Your task to perform on an android device: Find coffee shops on Maps Image 0: 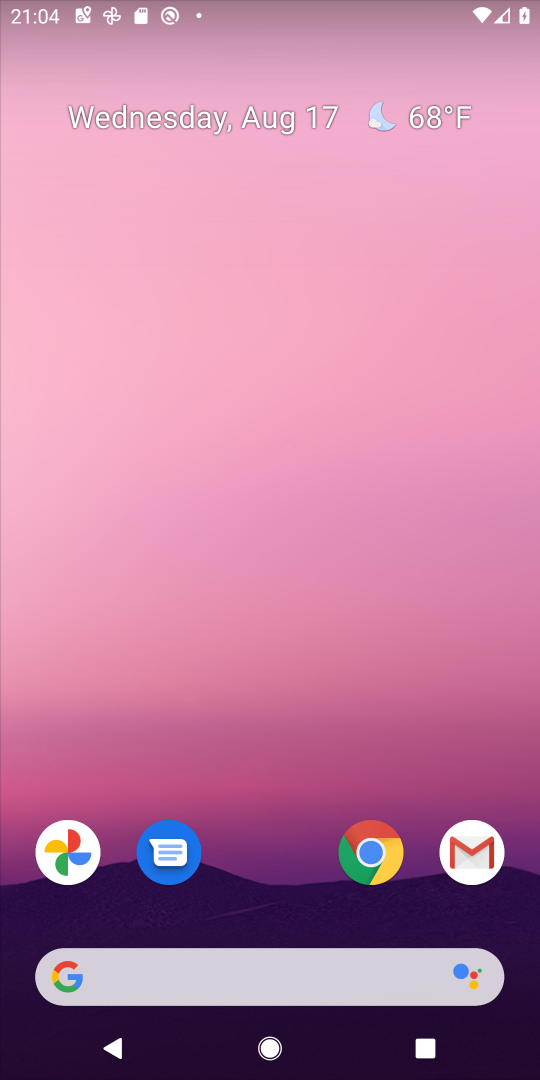
Step 0: drag from (283, 857) to (307, 99)
Your task to perform on an android device: Find coffee shops on Maps Image 1: 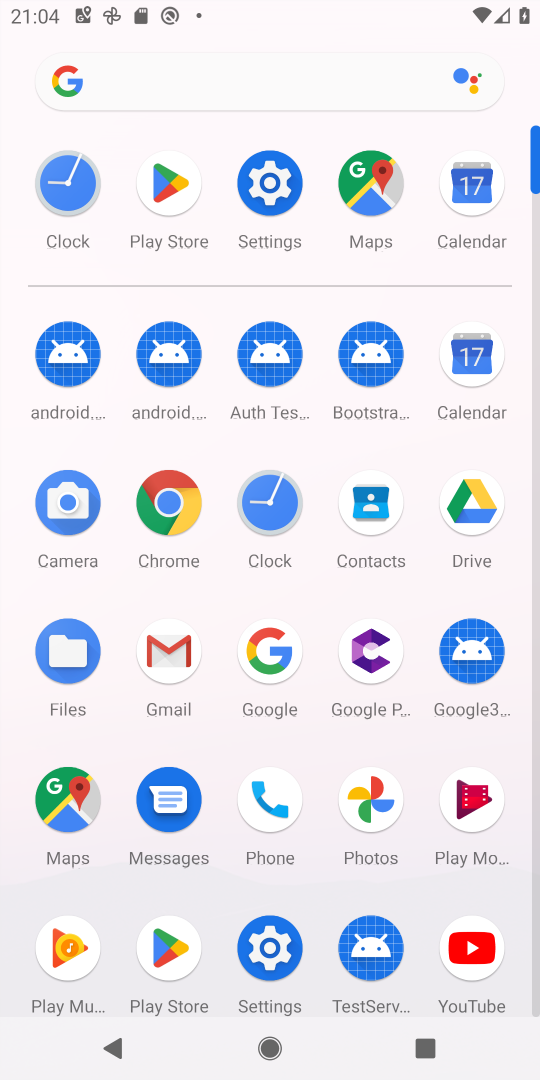
Step 1: click (62, 793)
Your task to perform on an android device: Find coffee shops on Maps Image 2: 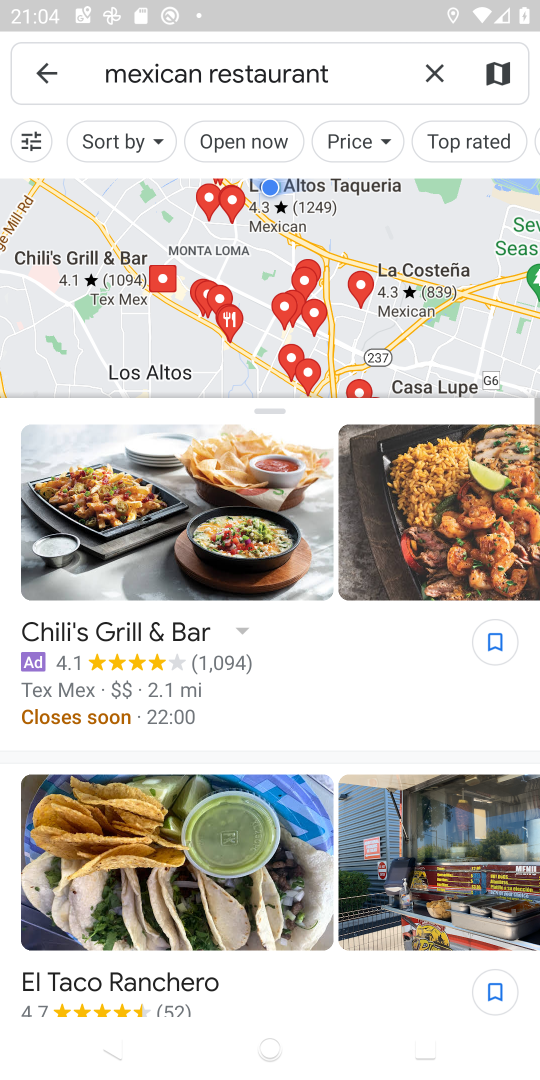
Step 2: click (442, 72)
Your task to perform on an android device: Find coffee shops on Maps Image 3: 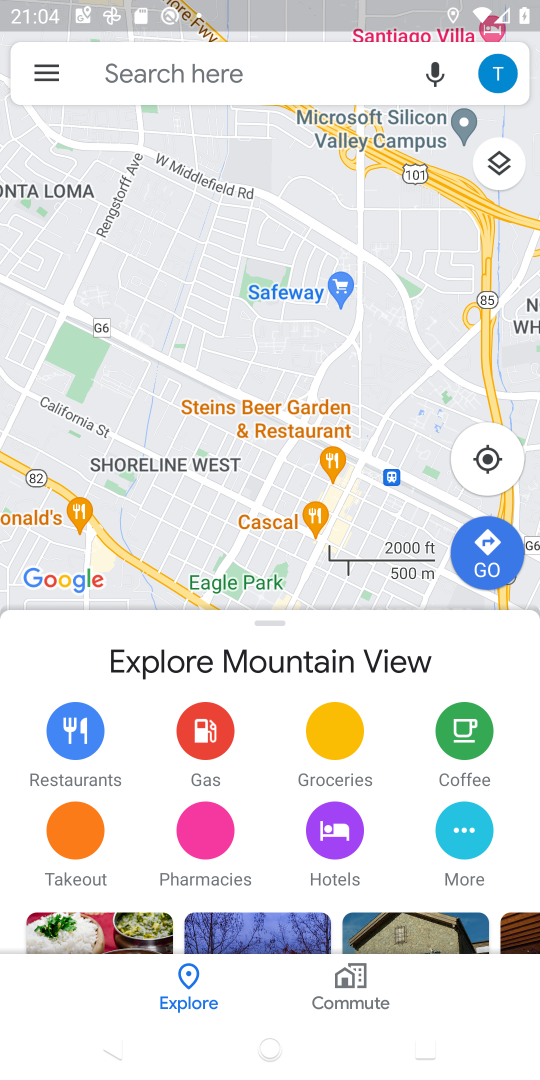
Step 3: click (151, 65)
Your task to perform on an android device: Find coffee shops on Maps Image 4: 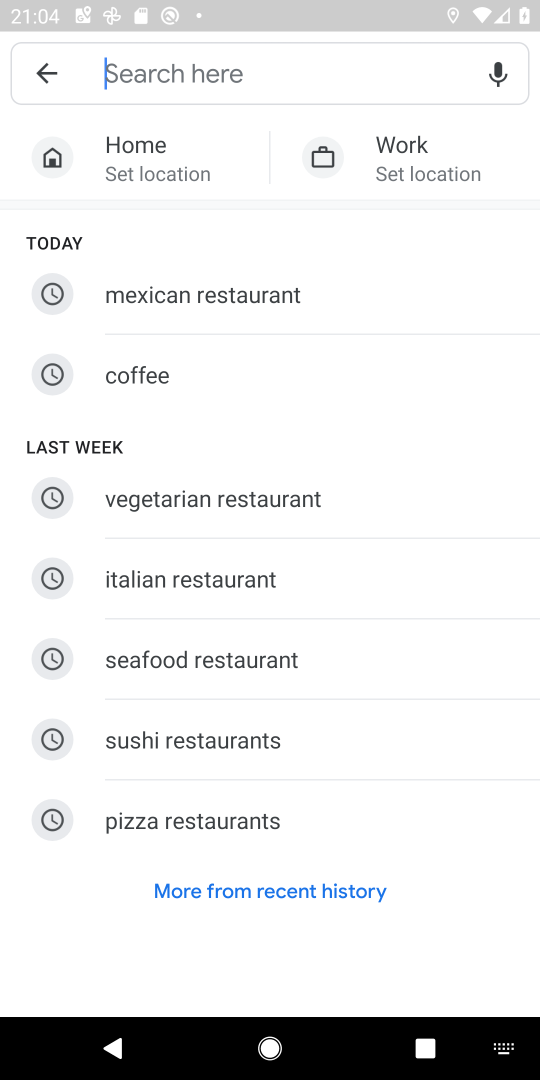
Step 4: click (150, 367)
Your task to perform on an android device: Find coffee shops on Maps Image 5: 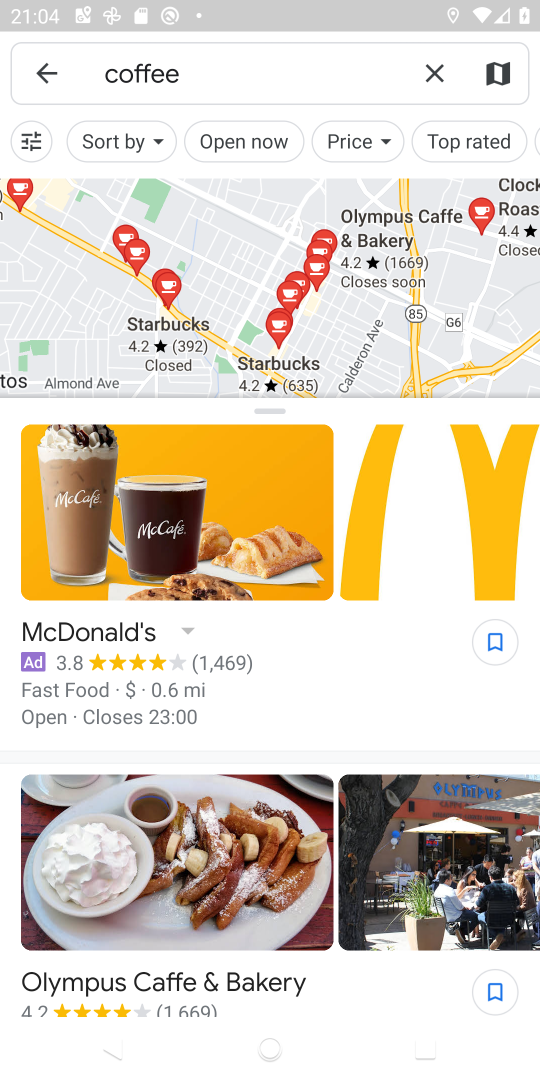
Step 5: task complete